Your task to perform on an android device: Is it going to rain today? Image 0: 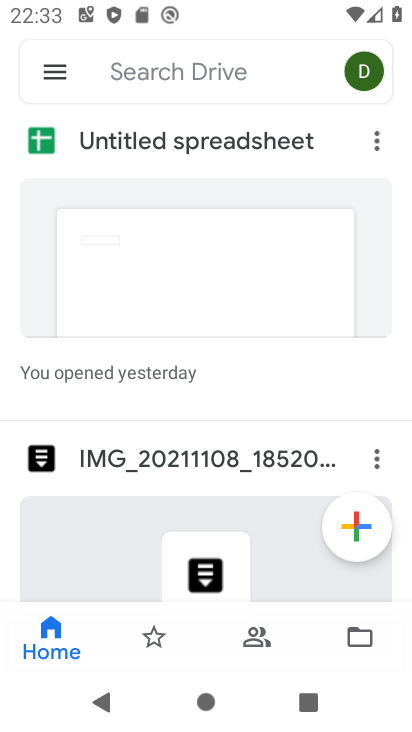
Step 0: press home button
Your task to perform on an android device: Is it going to rain today? Image 1: 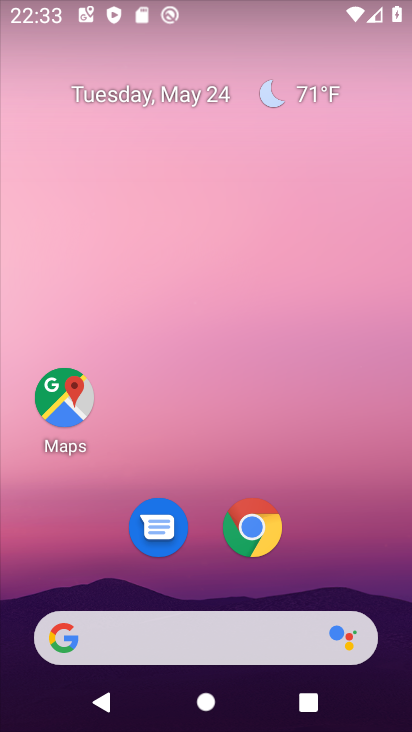
Step 1: click (177, 639)
Your task to perform on an android device: Is it going to rain today? Image 2: 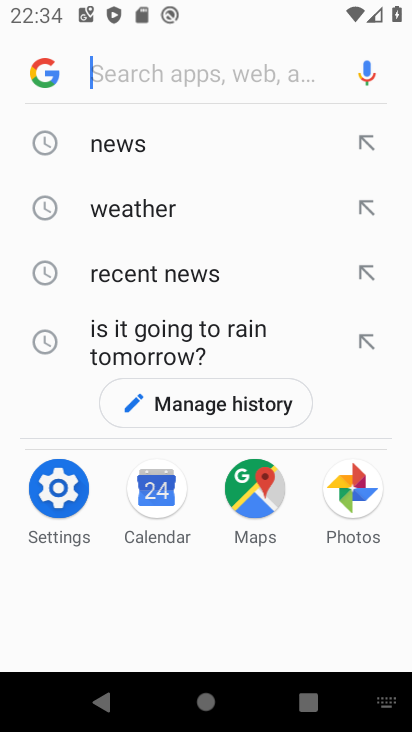
Step 2: type "is it going to rain today"
Your task to perform on an android device: Is it going to rain today? Image 3: 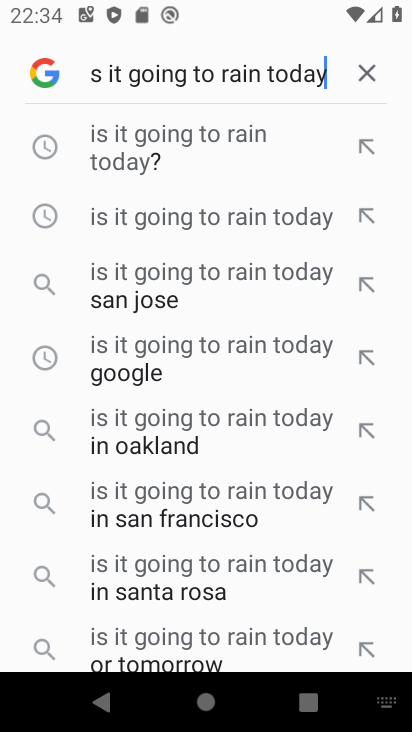
Step 3: click (132, 152)
Your task to perform on an android device: Is it going to rain today? Image 4: 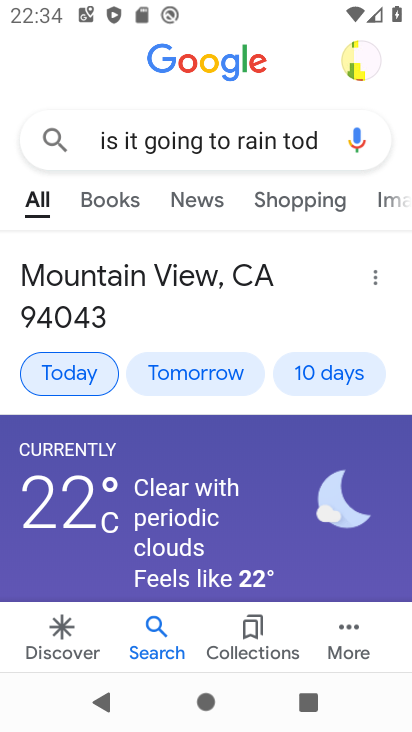
Step 4: task complete